Your task to perform on an android device: toggle improve location accuracy Image 0: 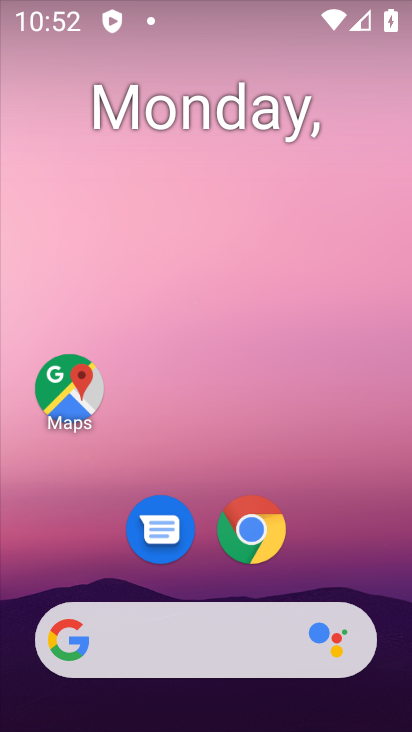
Step 0: drag from (210, 584) to (167, 176)
Your task to perform on an android device: toggle improve location accuracy Image 1: 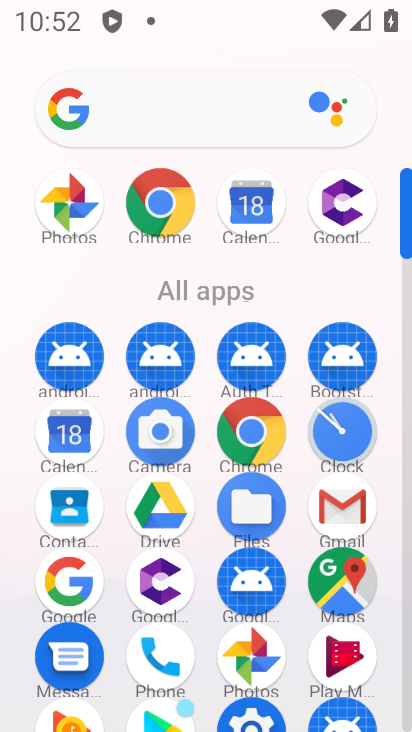
Step 1: drag from (204, 568) to (193, 189)
Your task to perform on an android device: toggle improve location accuracy Image 2: 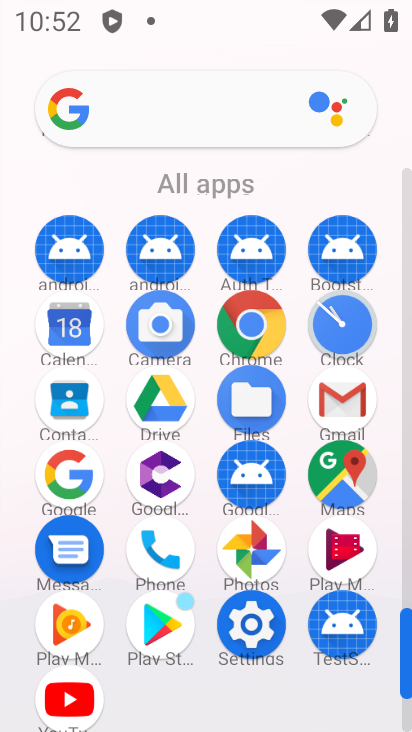
Step 2: click (235, 609)
Your task to perform on an android device: toggle improve location accuracy Image 3: 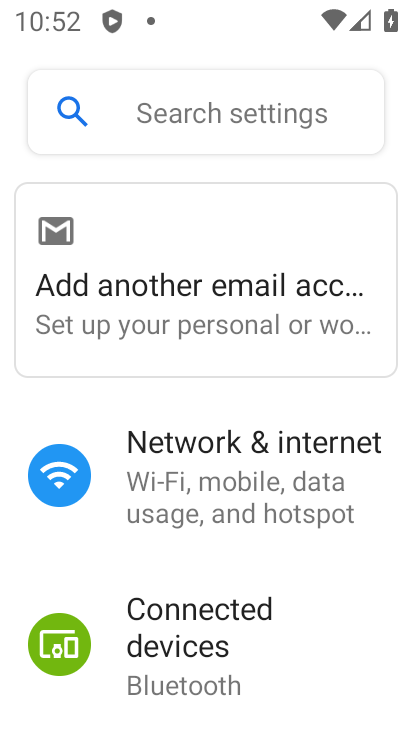
Step 3: drag from (261, 568) to (293, 140)
Your task to perform on an android device: toggle improve location accuracy Image 4: 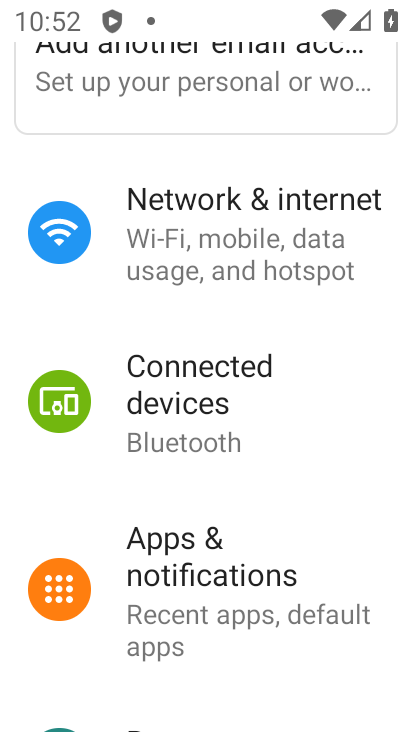
Step 4: drag from (249, 666) to (250, 254)
Your task to perform on an android device: toggle improve location accuracy Image 5: 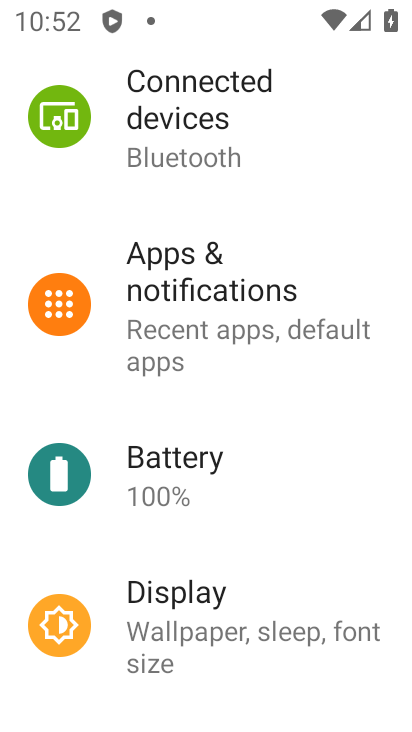
Step 5: drag from (212, 546) to (251, 250)
Your task to perform on an android device: toggle improve location accuracy Image 6: 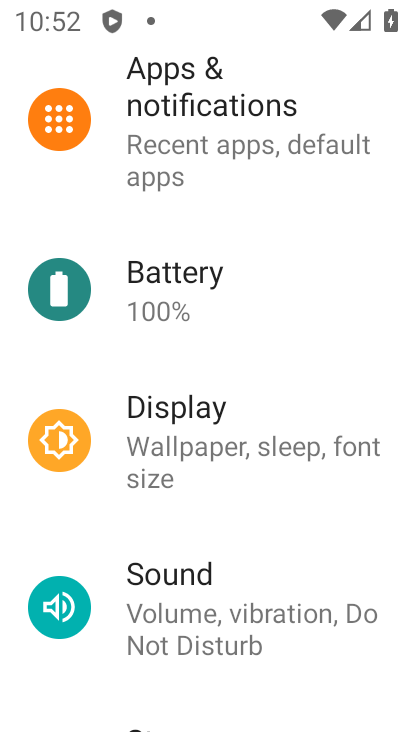
Step 6: drag from (232, 588) to (263, 249)
Your task to perform on an android device: toggle improve location accuracy Image 7: 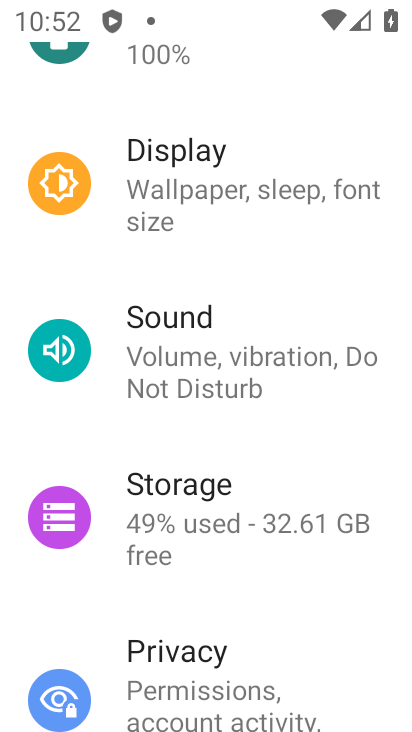
Step 7: drag from (215, 593) to (220, 273)
Your task to perform on an android device: toggle improve location accuracy Image 8: 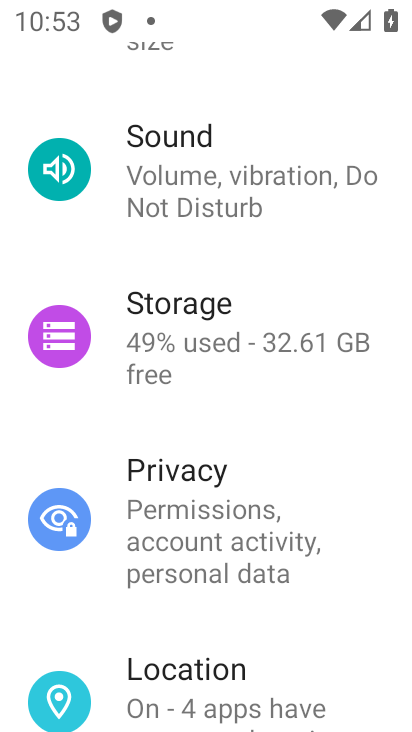
Step 8: click (212, 679)
Your task to perform on an android device: toggle improve location accuracy Image 9: 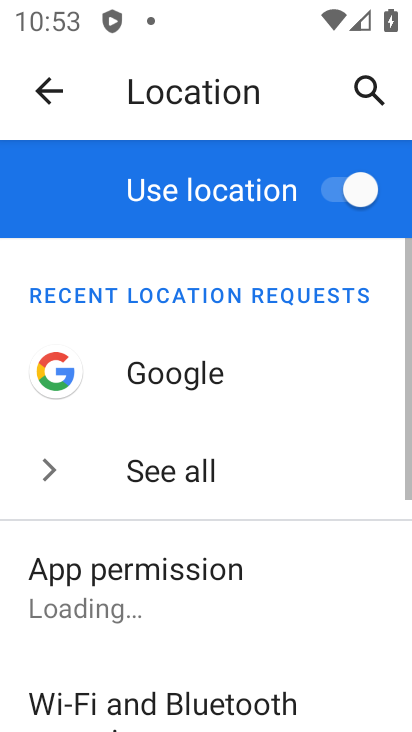
Step 9: drag from (254, 517) to (283, 297)
Your task to perform on an android device: toggle improve location accuracy Image 10: 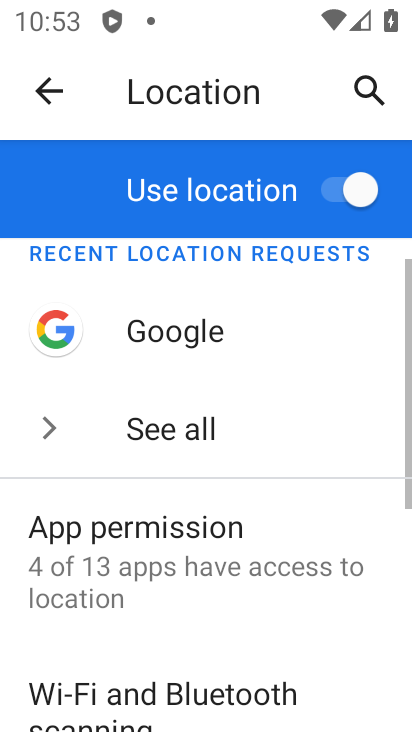
Step 10: drag from (265, 558) to (298, 329)
Your task to perform on an android device: toggle improve location accuracy Image 11: 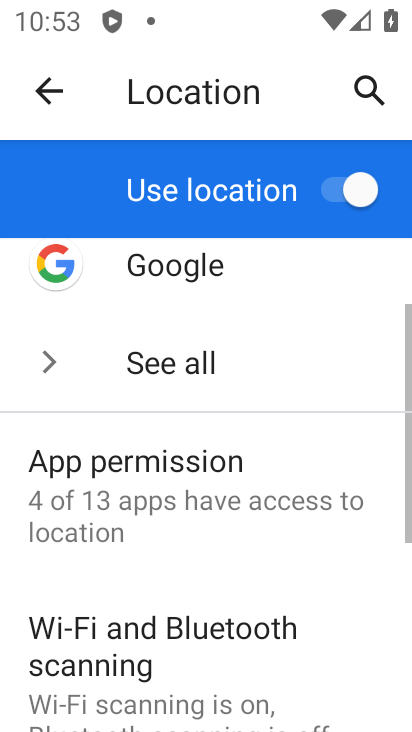
Step 11: drag from (269, 574) to (270, 346)
Your task to perform on an android device: toggle improve location accuracy Image 12: 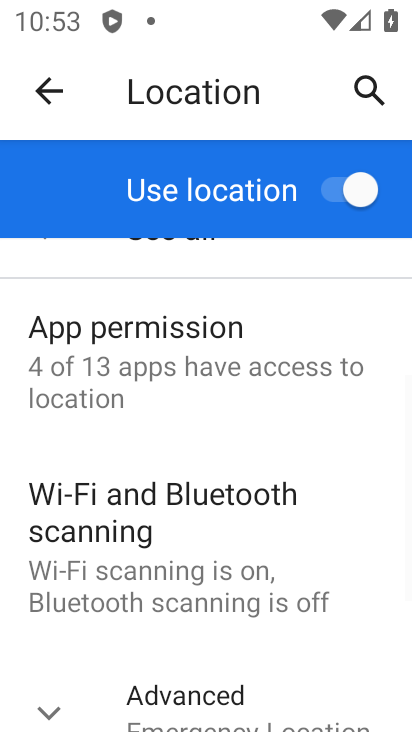
Step 12: drag from (269, 555) to (281, 307)
Your task to perform on an android device: toggle improve location accuracy Image 13: 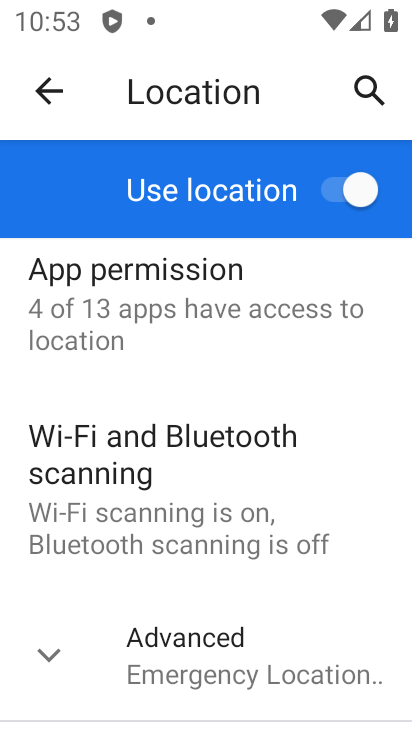
Step 13: click (194, 654)
Your task to perform on an android device: toggle improve location accuracy Image 14: 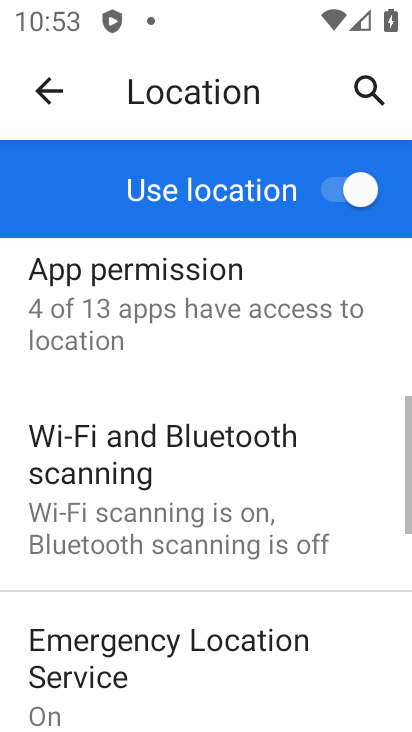
Step 14: drag from (250, 628) to (266, 278)
Your task to perform on an android device: toggle improve location accuracy Image 15: 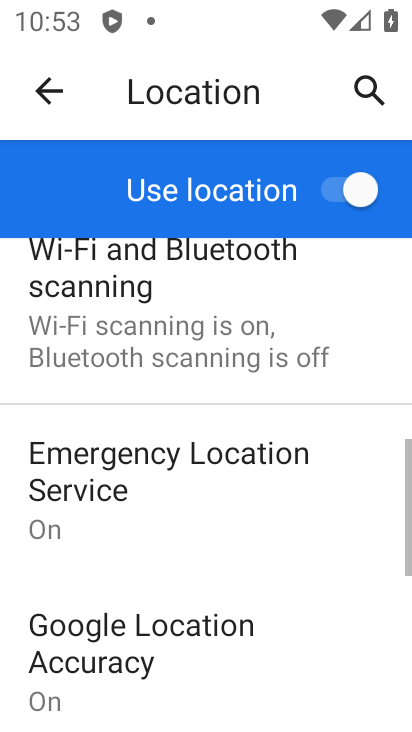
Step 15: drag from (269, 625) to (272, 424)
Your task to perform on an android device: toggle improve location accuracy Image 16: 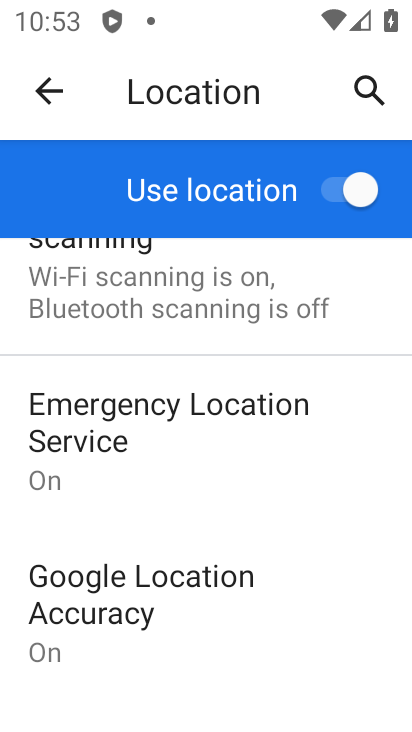
Step 16: click (208, 594)
Your task to perform on an android device: toggle improve location accuracy Image 17: 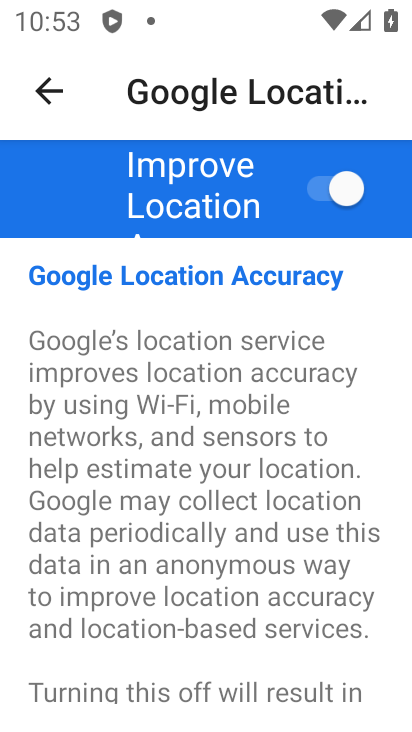
Step 17: click (329, 182)
Your task to perform on an android device: toggle improve location accuracy Image 18: 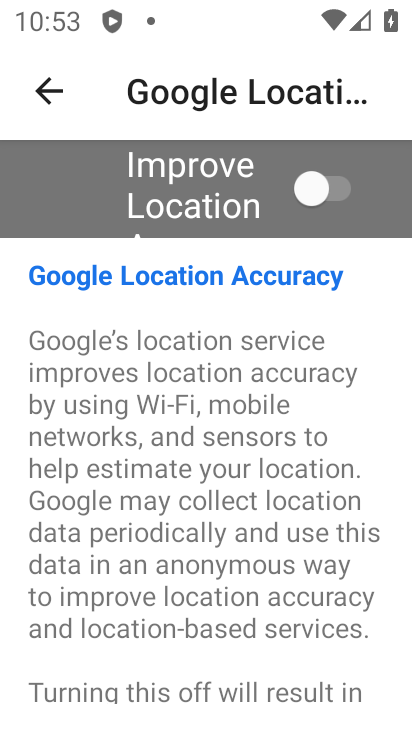
Step 18: task complete